Your task to perform on an android device: Open sound settings Image 0: 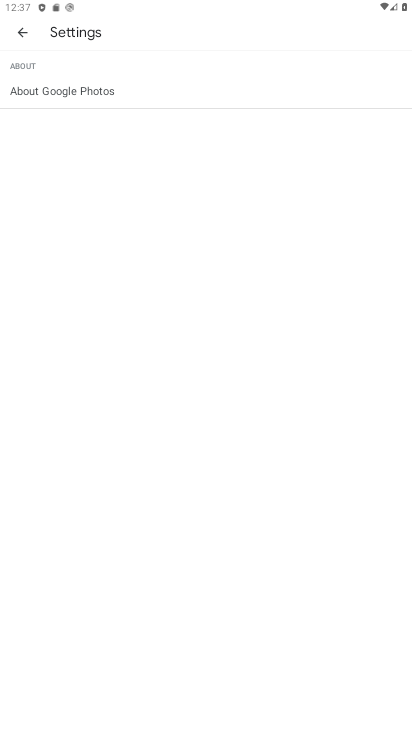
Step 0: press home button
Your task to perform on an android device: Open sound settings Image 1: 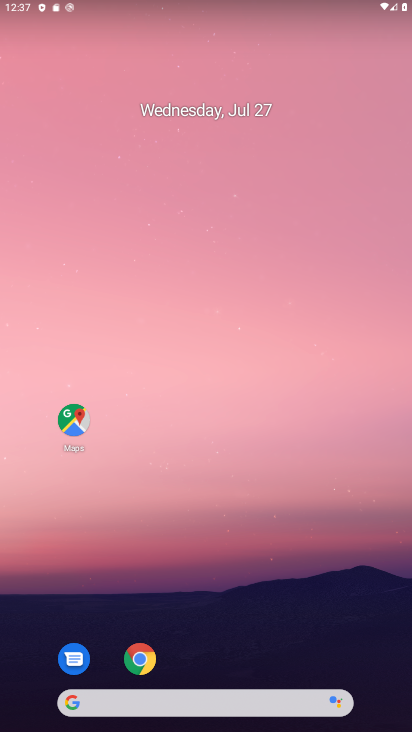
Step 1: drag from (275, 670) to (254, 80)
Your task to perform on an android device: Open sound settings Image 2: 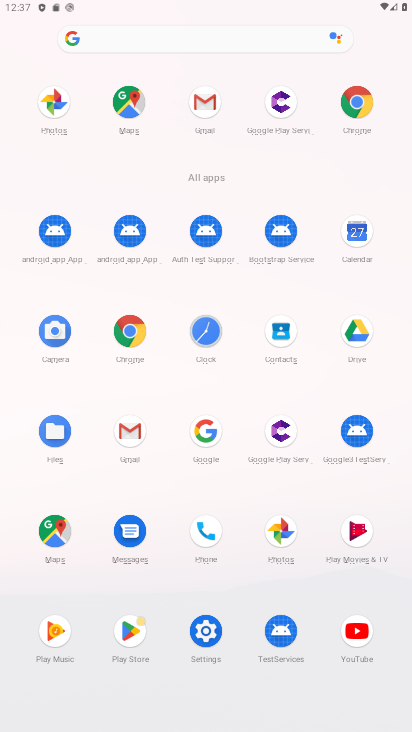
Step 2: click (209, 635)
Your task to perform on an android device: Open sound settings Image 3: 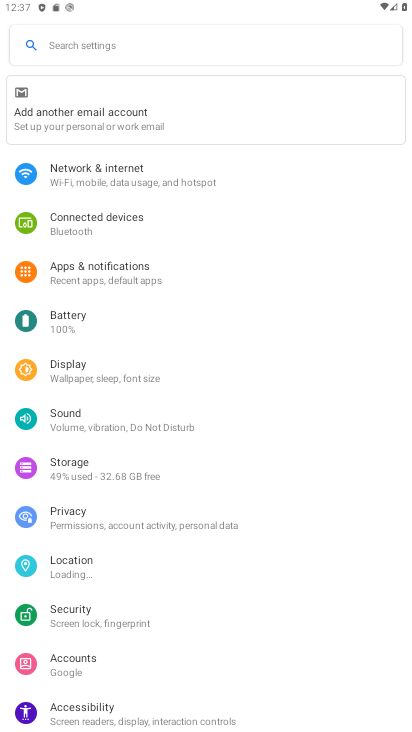
Step 3: click (98, 426)
Your task to perform on an android device: Open sound settings Image 4: 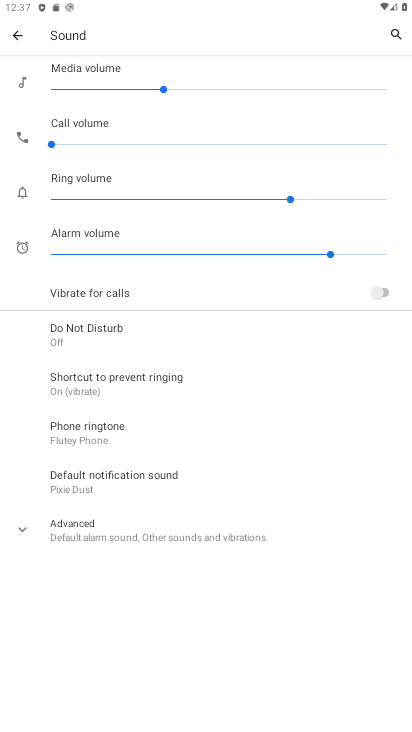
Step 4: task complete